Your task to perform on an android device: Open internet settings Image 0: 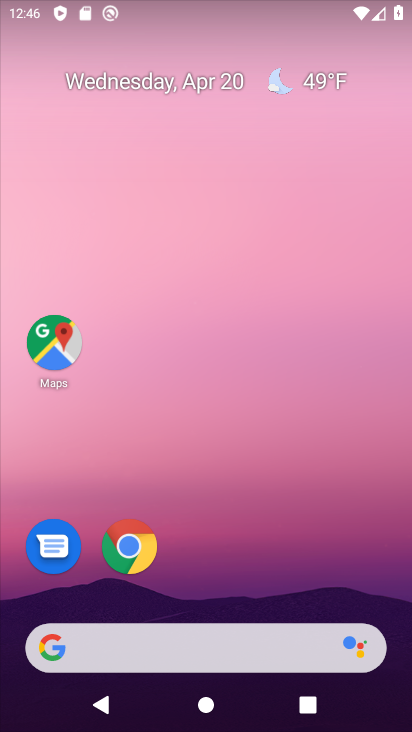
Step 0: drag from (262, 434) to (329, 43)
Your task to perform on an android device: Open internet settings Image 1: 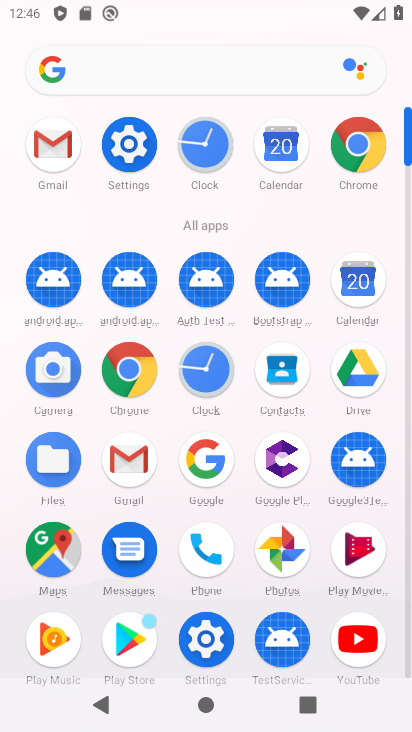
Step 1: click (126, 138)
Your task to perform on an android device: Open internet settings Image 2: 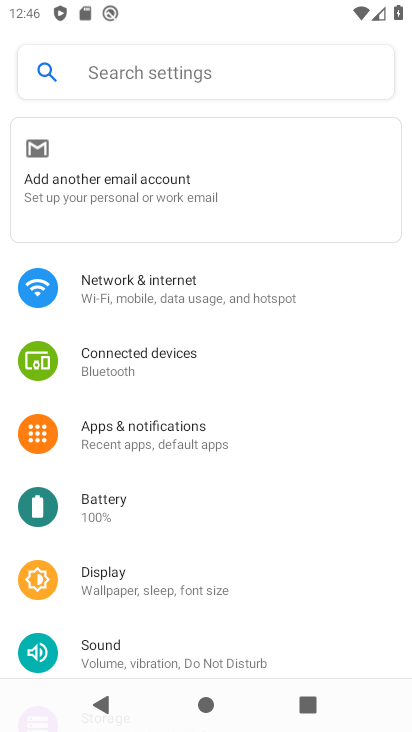
Step 2: click (141, 276)
Your task to perform on an android device: Open internet settings Image 3: 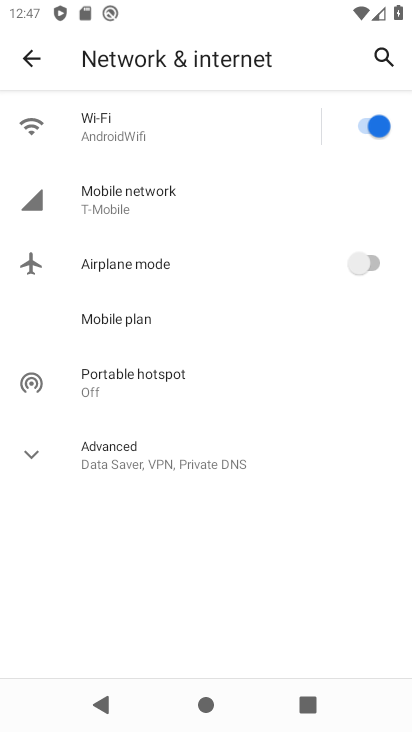
Step 3: task complete